Your task to perform on an android device: toggle wifi Image 0: 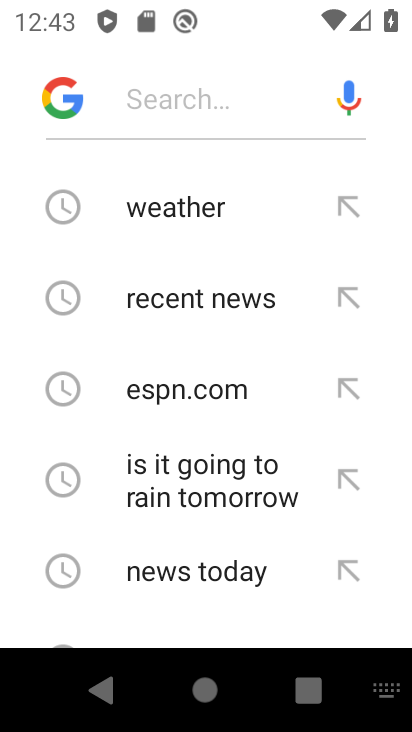
Step 0: press home button
Your task to perform on an android device: toggle wifi Image 1: 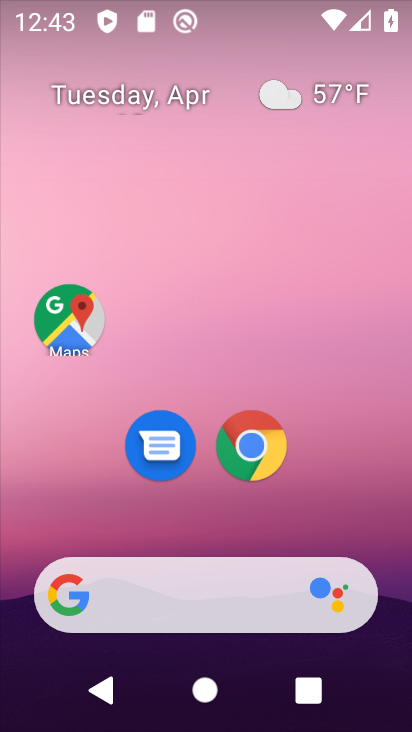
Step 1: drag from (335, 485) to (342, 96)
Your task to perform on an android device: toggle wifi Image 2: 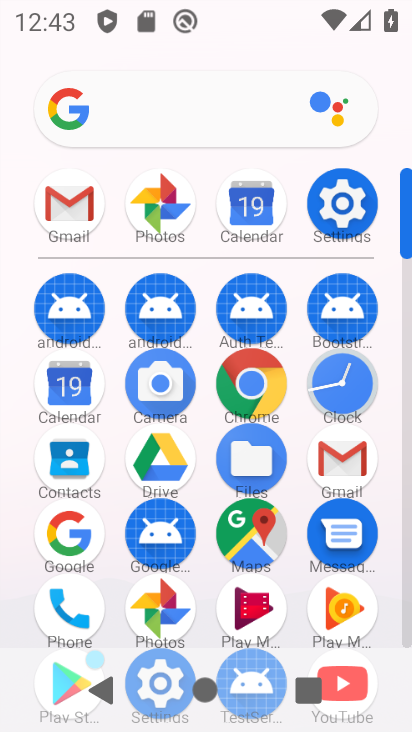
Step 2: click (339, 189)
Your task to perform on an android device: toggle wifi Image 3: 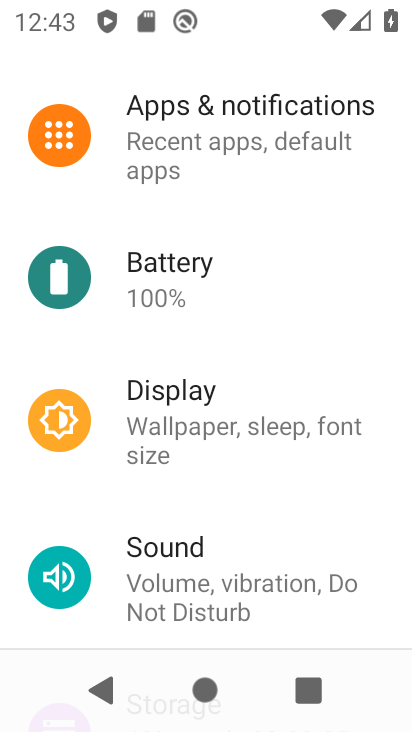
Step 3: drag from (332, 184) to (242, 612)
Your task to perform on an android device: toggle wifi Image 4: 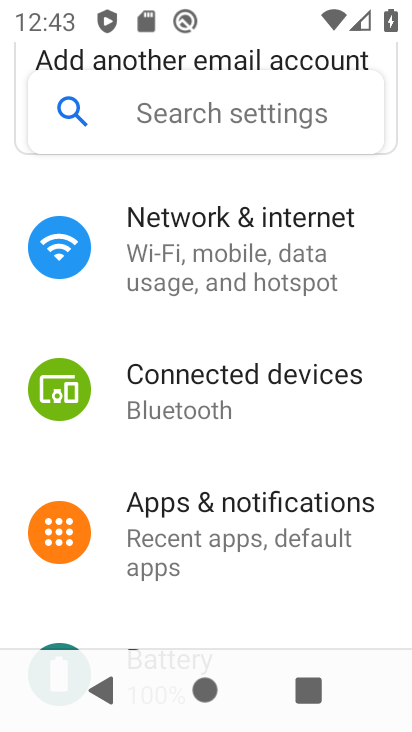
Step 4: click (292, 248)
Your task to perform on an android device: toggle wifi Image 5: 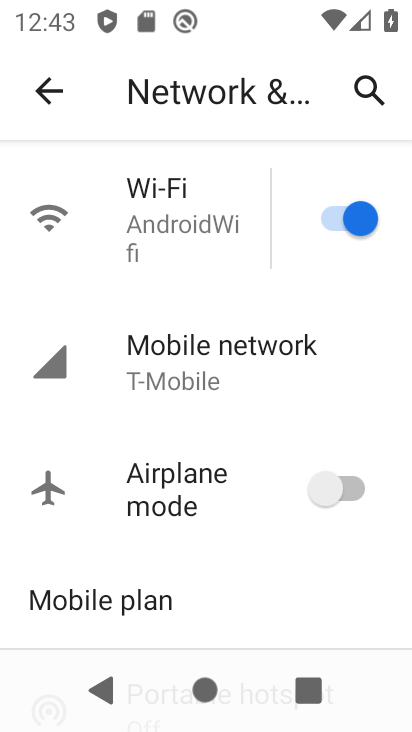
Step 5: click (323, 213)
Your task to perform on an android device: toggle wifi Image 6: 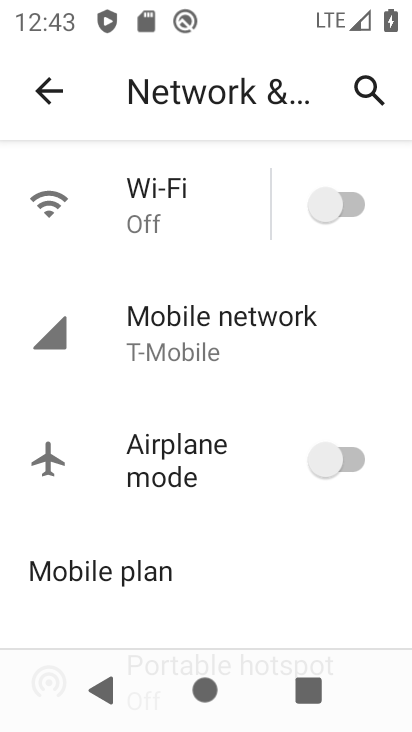
Step 6: task complete